Your task to perform on an android device: star an email in the gmail app Image 0: 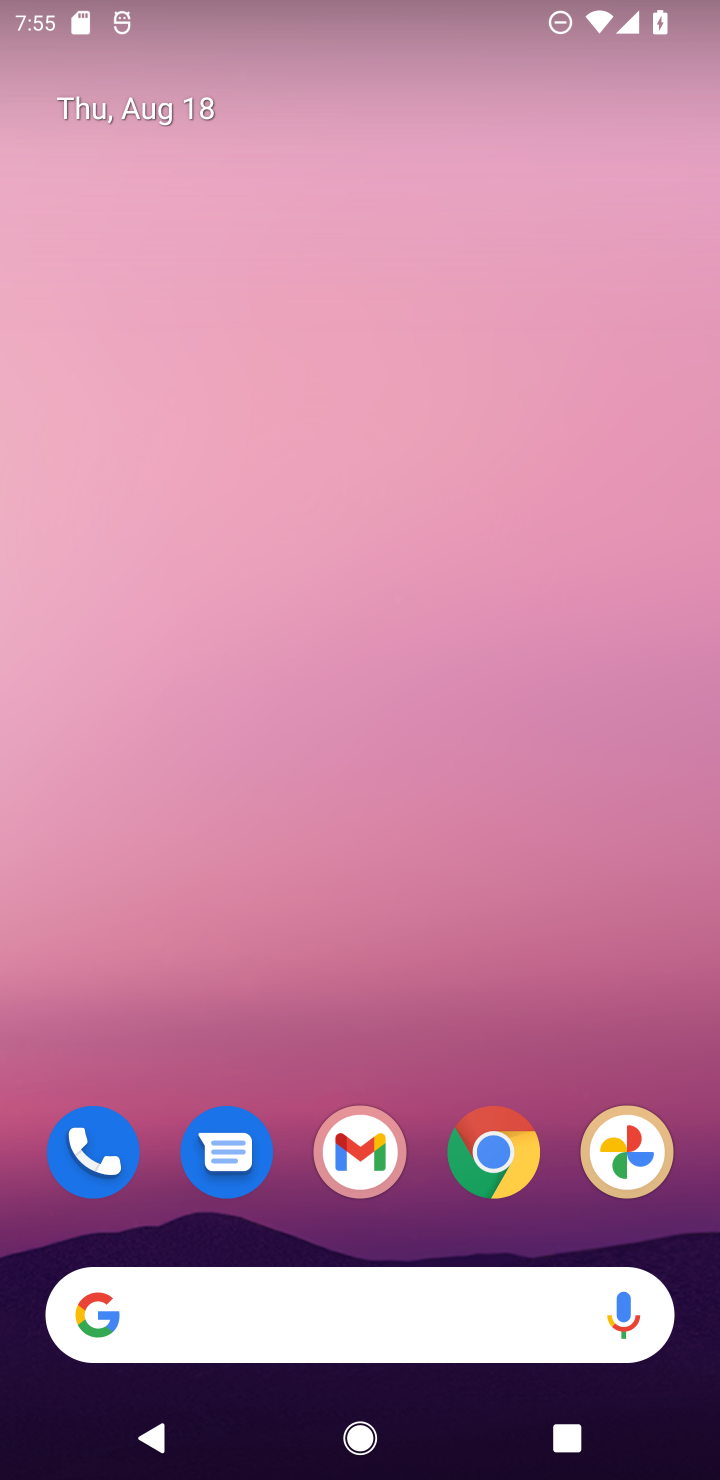
Step 0: drag from (435, 1053) to (407, 296)
Your task to perform on an android device: star an email in the gmail app Image 1: 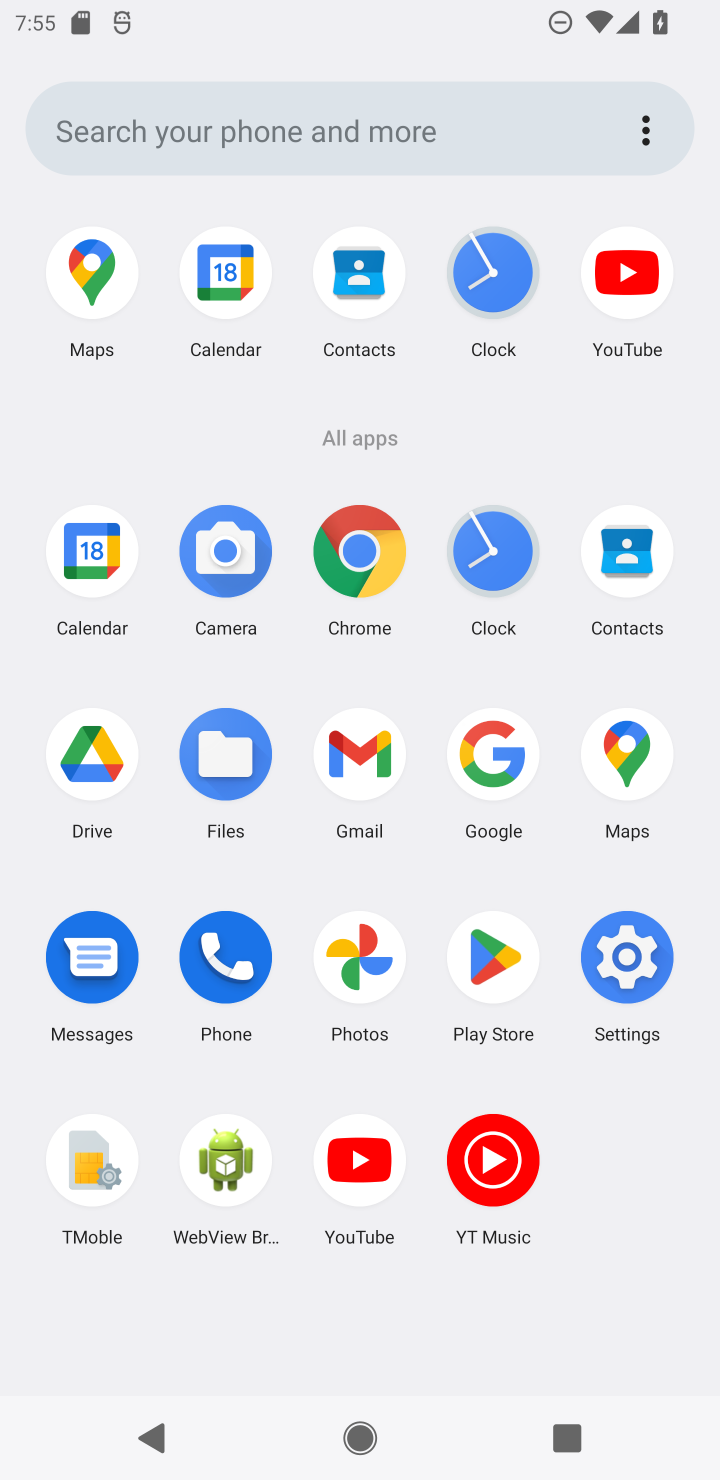
Step 1: click (364, 739)
Your task to perform on an android device: star an email in the gmail app Image 2: 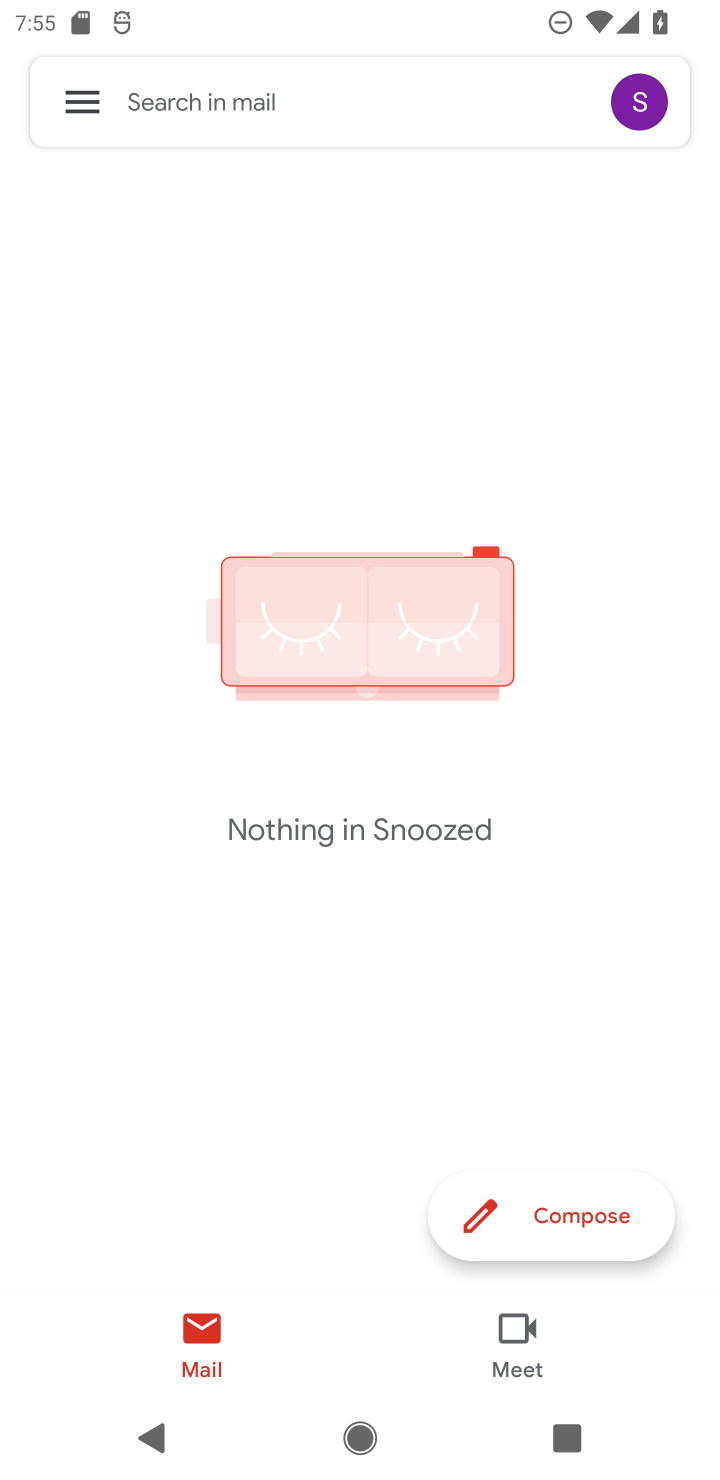
Step 2: task complete